Your task to perform on an android device: open a bookmark in the chrome app Image 0: 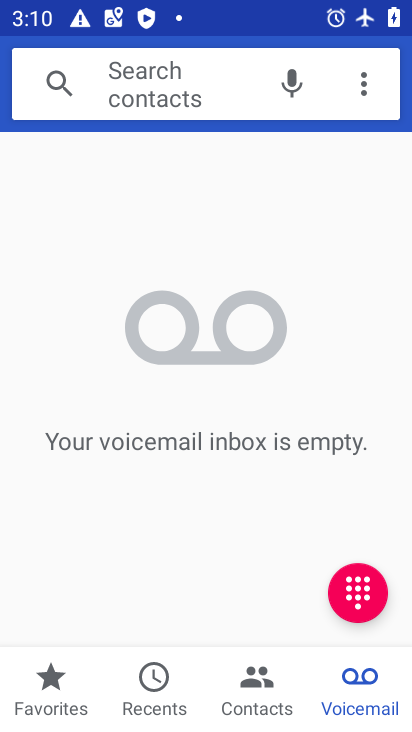
Step 0: press home button
Your task to perform on an android device: open a bookmark in the chrome app Image 1: 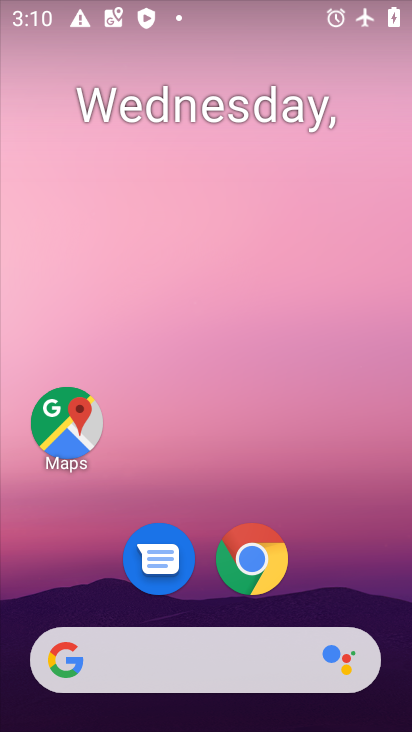
Step 1: drag from (204, 612) to (201, 145)
Your task to perform on an android device: open a bookmark in the chrome app Image 2: 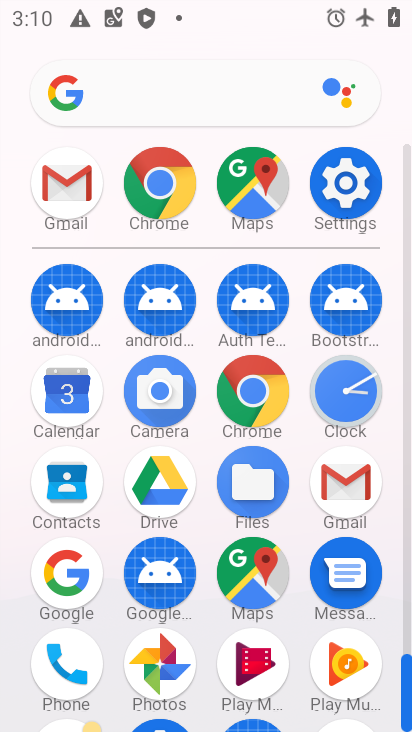
Step 2: click (255, 396)
Your task to perform on an android device: open a bookmark in the chrome app Image 3: 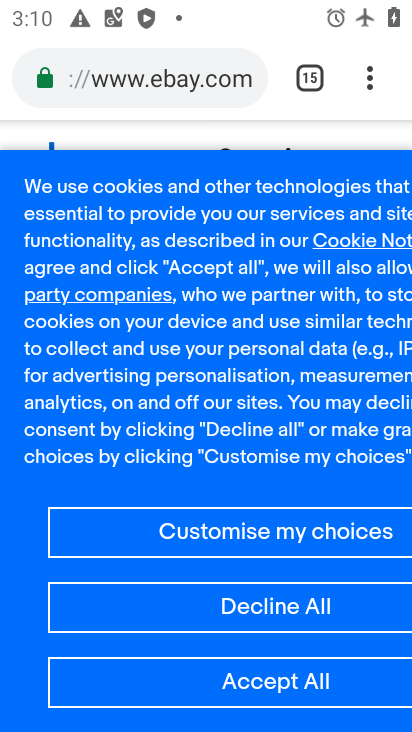
Step 3: click (371, 83)
Your task to perform on an android device: open a bookmark in the chrome app Image 4: 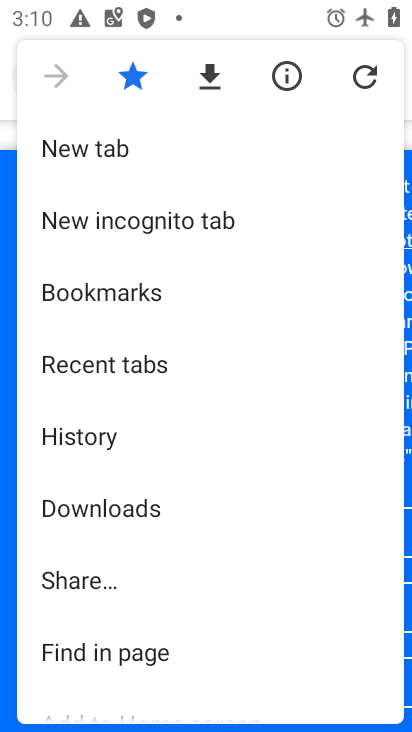
Step 4: drag from (134, 586) to (123, 432)
Your task to perform on an android device: open a bookmark in the chrome app Image 5: 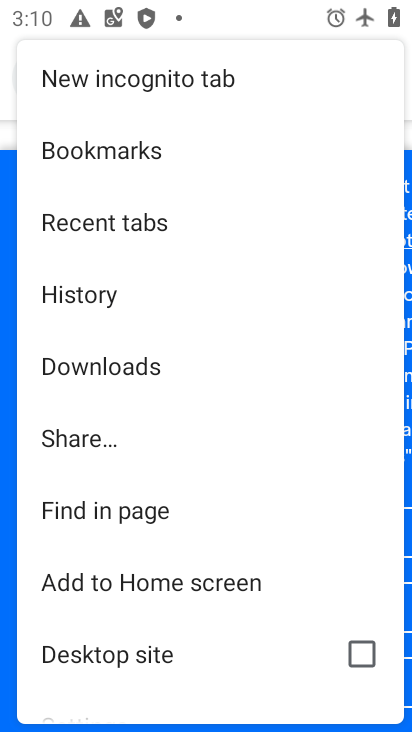
Step 5: click (113, 153)
Your task to perform on an android device: open a bookmark in the chrome app Image 6: 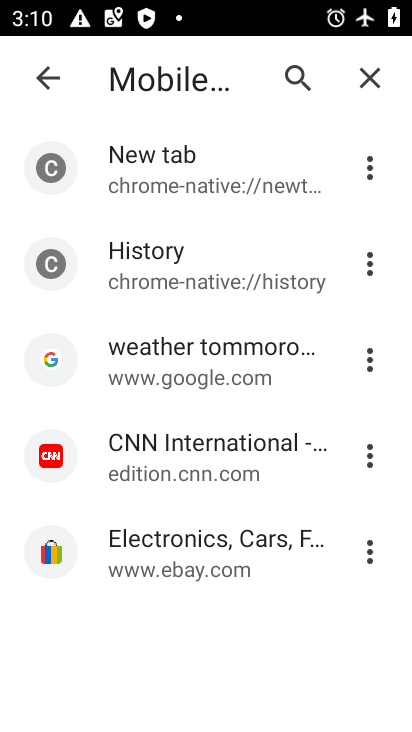
Step 6: click (171, 447)
Your task to perform on an android device: open a bookmark in the chrome app Image 7: 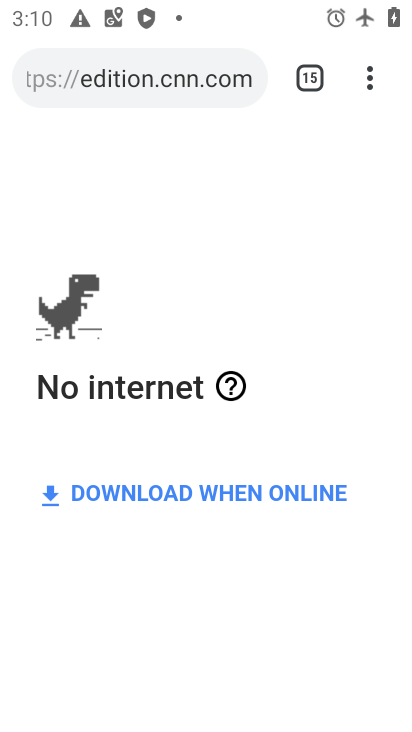
Step 7: task complete